Your task to perform on an android device: Go to Wikipedia Image 0: 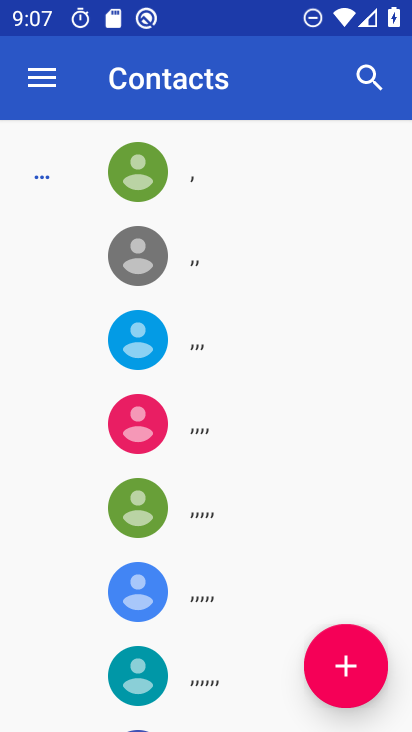
Step 0: press home button
Your task to perform on an android device: Go to Wikipedia Image 1: 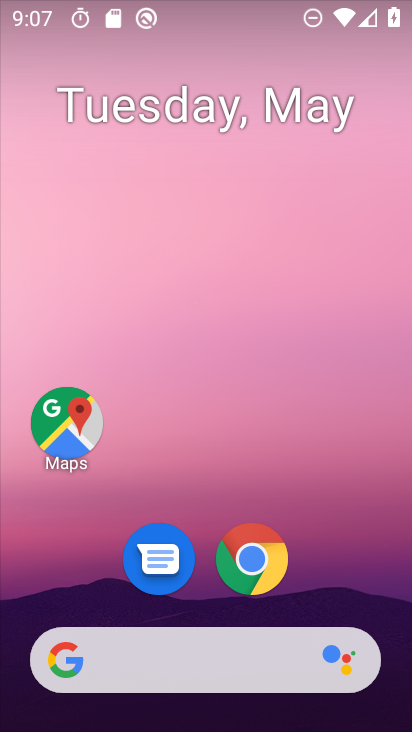
Step 1: drag from (375, 545) to (262, 28)
Your task to perform on an android device: Go to Wikipedia Image 2: 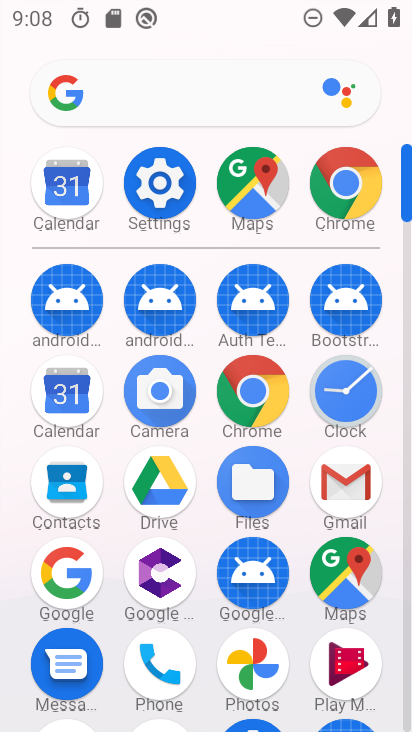
Step 2: click (46, 572)
Your task to perform on an android device: Go to Wikipedia Image 3: 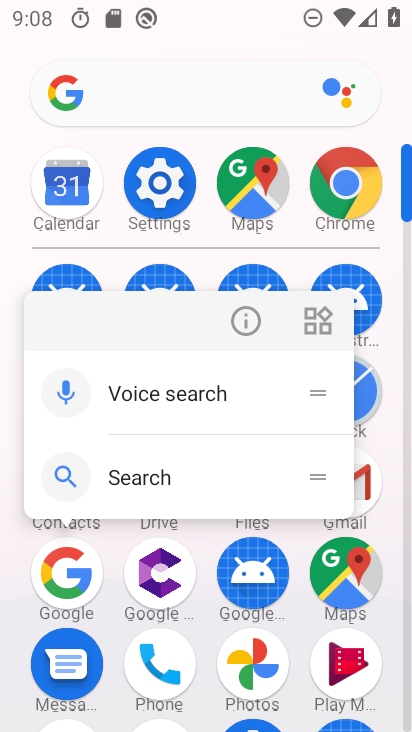
Step 3: click (46, 571)
Your task to perform on an android device: Go to Wikipedia Image 4: 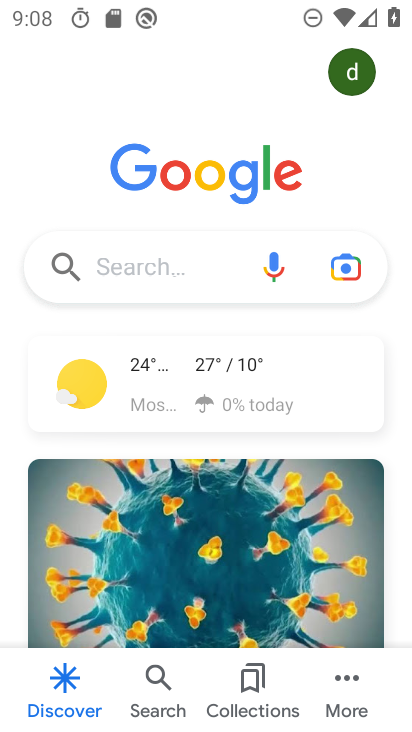
Step 4: click (136, 199)
Your task to perform on an android device: Go to Wikipedia Image 5: 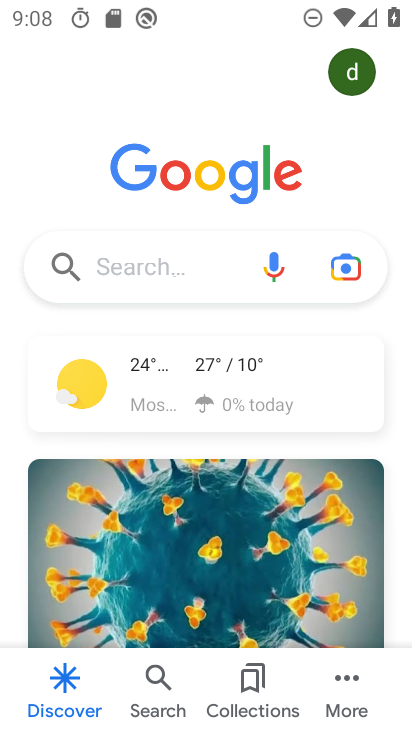
Step 5: click (133, 245)
Your task to perform on an android device: Go to Wikipedia Image 6: 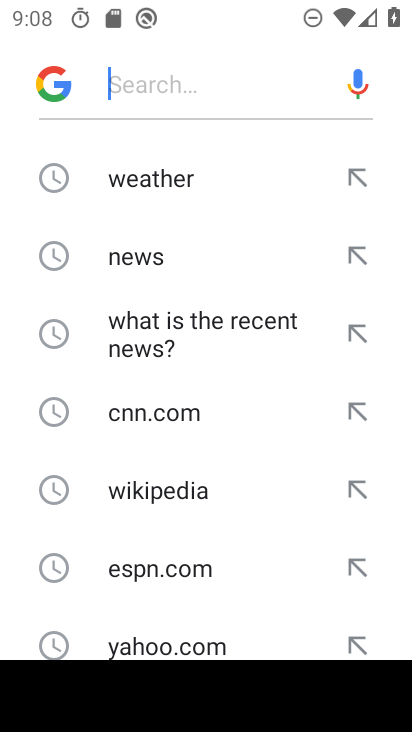
Step 6: click (137, 506)
Your task to perform on an android device: Go to Wikipedia Image 7: 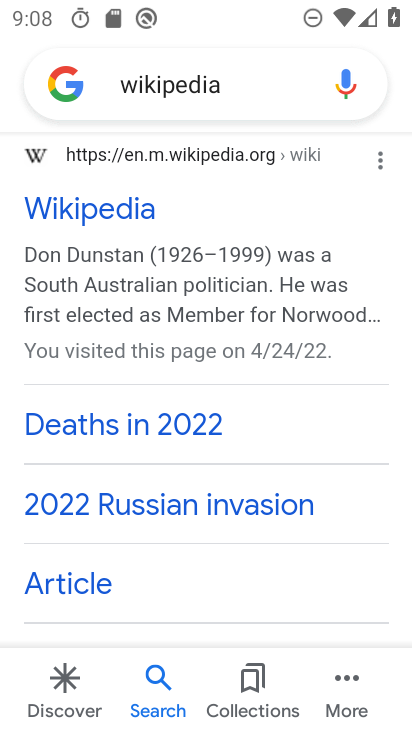
Step 7: task complete